Your task to perform on an android device: set the timer Image 0: 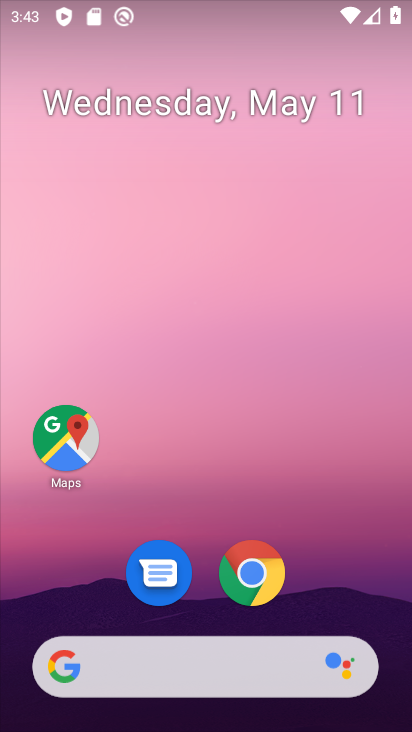
Step 0: drag from (187, 635) to (309, 187)
Your task to perform on an android device: set the timer Image 1: 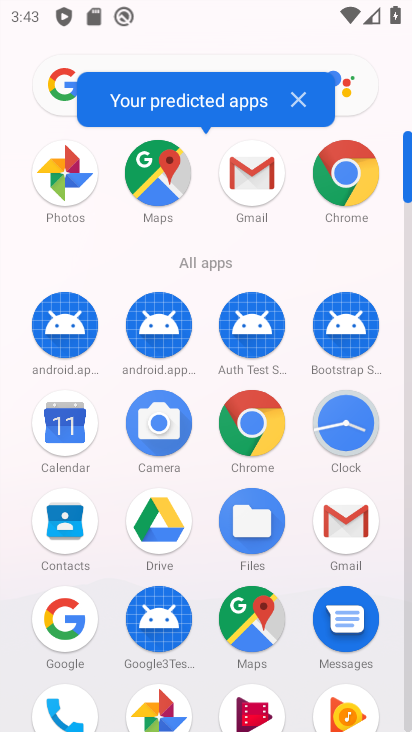
Step 1: click (352, 431)
Your task to perform on an android device: set the timer Image 2: 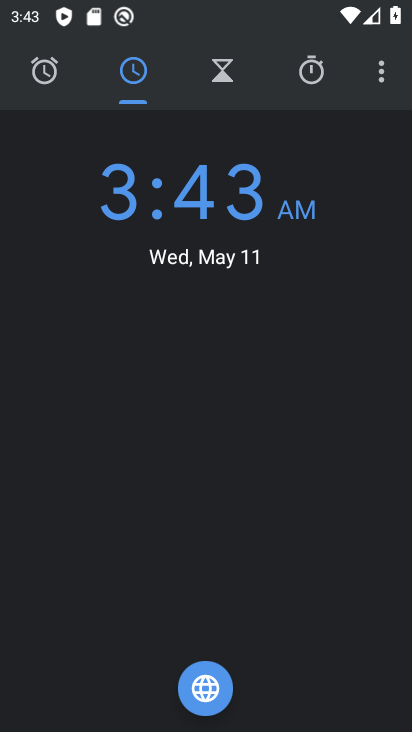
Step 2: click (221, 74)
Your task to perform on an android device: set the timer Image 3: 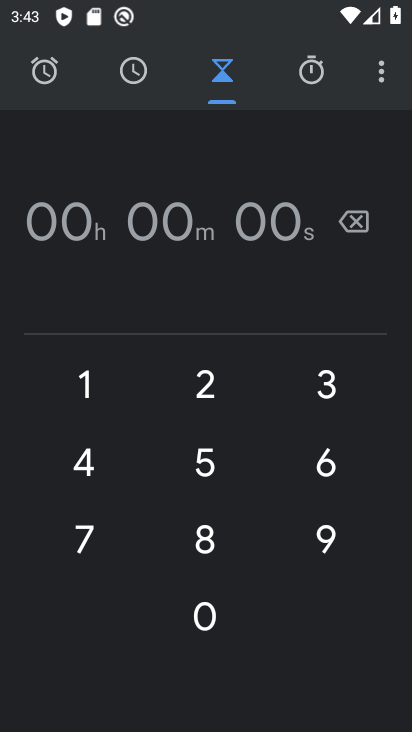
Step 3: click (317, 377)
Your task to perform on an android device: set the timer Image 4: 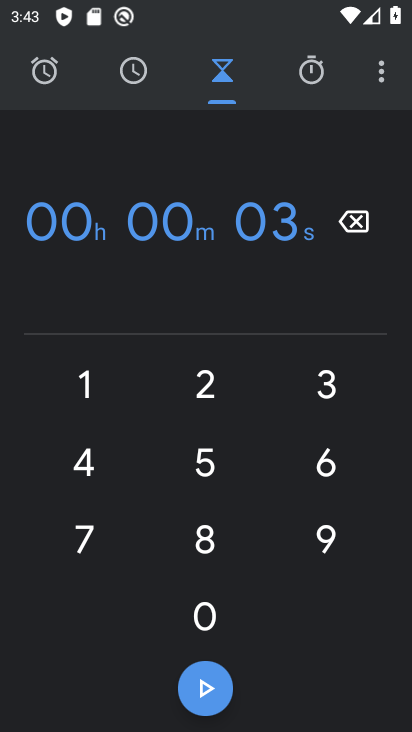
Step 4: click (205, 622)
Your task to perform on an android device: set the timer Image 5: 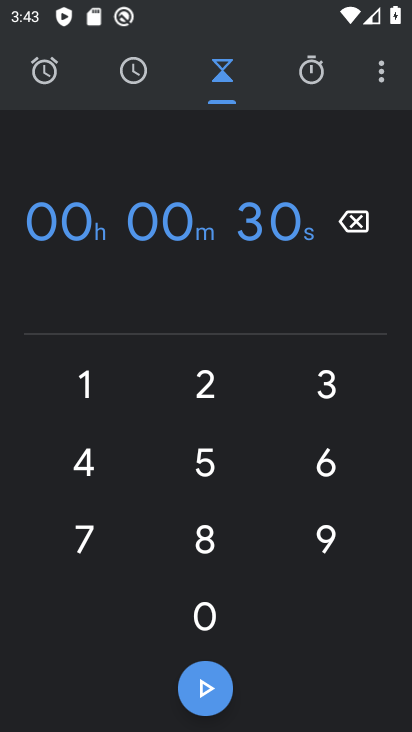
Step 5: click (206, 711)
Your task to perform on an android device: set the timer Image 6: 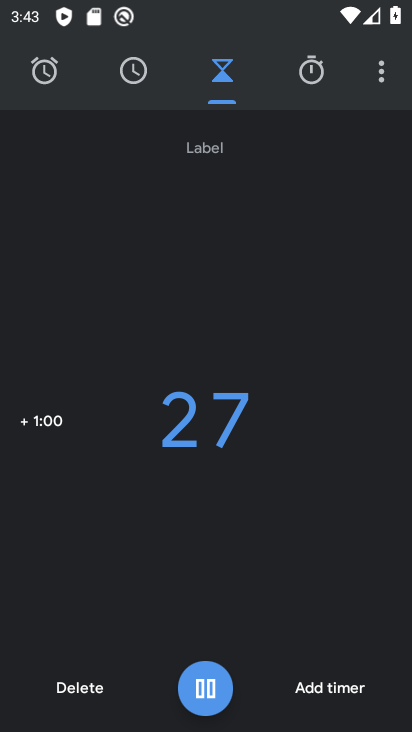
Step 6: task complete